Your task to perform on an android device: Clear the shopping cart on newegg.com. Search for "macbook pro" on newegg.com, select the first entry, add it to the cart, then select checkout. Image 0: 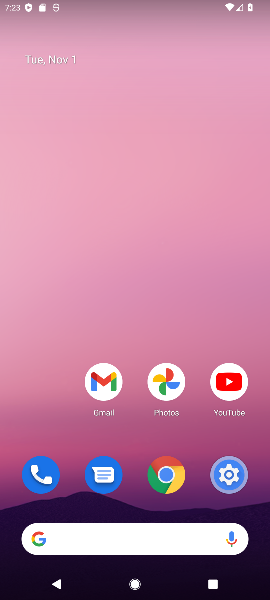
Step 0: drag from (144, 445) to (155, 56)
Your task to perform on an android device: Clear the shopping cart on newegg.com. Search for "macbook pro" on newegg.com, select the first entry, add it to the cart, then select checkout. Image 1: 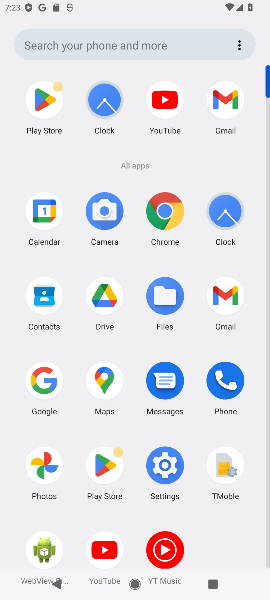
Step 1: click (169, 211)
Your task to perform on an android device: Clear the shopping cart on newegg.com. Search for "macbook pro" on newegg.com, select the first entry, add it to the cart, then select checkout. Image 2: 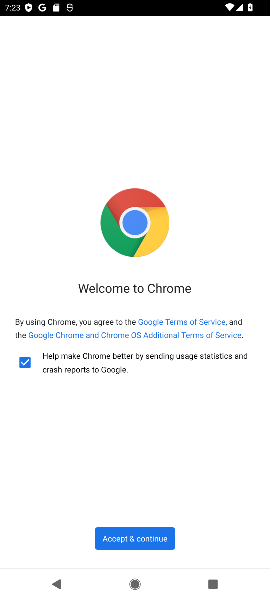
Step 2: click (133, 537)
Your task to perform on an android device: Clear the shopping cart on newegg.com. Search for "macbook pro" on newegg.com, select the first entry, add it to the cart, then select checkout. Image 3: 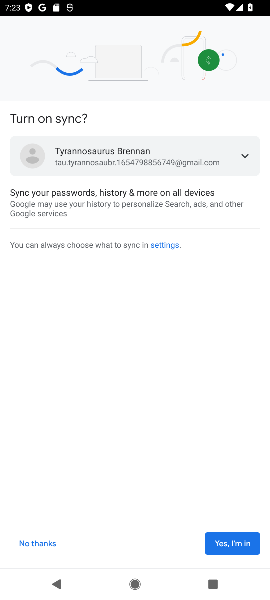
Step 3: click (236, 545)
Your task to perform on an android device: Clear the shopping cart on newegg.com. Search for "macbook pro" on newegg.com, select the first entry, add it to the cart, then select checkout. Image 4: 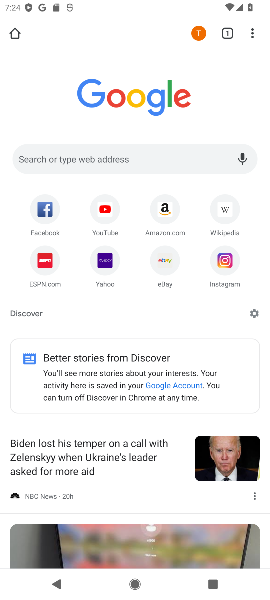
Step 4: click (75, 151)
Your task to perform on an android device: Clear the shopping cart on newegg.com. Search for "macbook pro" on newegg.com, select the first entry, add it to the cart, then select checkout. Image 5: 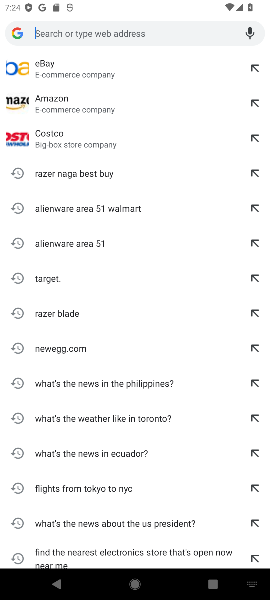
Step 5: type "newegg.com"
Your task to perform on an android device: Clear the shopping cart on newegg.com. Search for "macbook pro" on newegg.com, select the first entry, add it to the cart, then select checkout. Image 6: 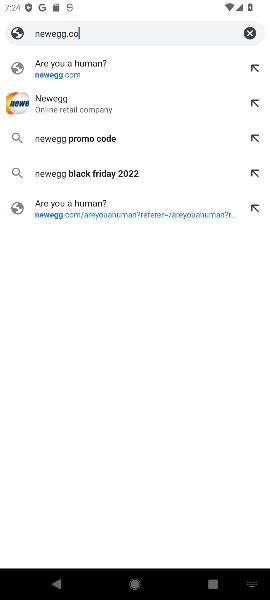
Step 6: type ""
Your task to perform on an android device: Clear the shopping cart on newegg.com. Search for "macbook pro" on newegg.com, select the first entry, add it to the cart, then select checkout. Image 7: 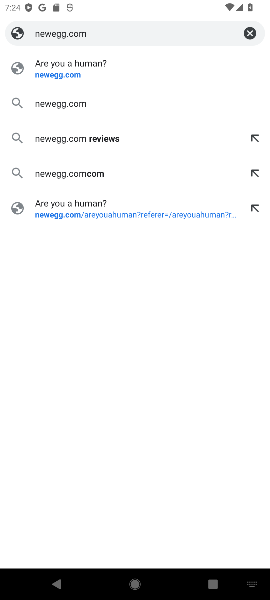
Step 7: click (87, 103)
Your task to perform on an android device: Clear the shopping cart on newegg.com. Search for "macbook pro" on newegg.com, select the first entry, add it to the cart, then select checkout. Image 8: 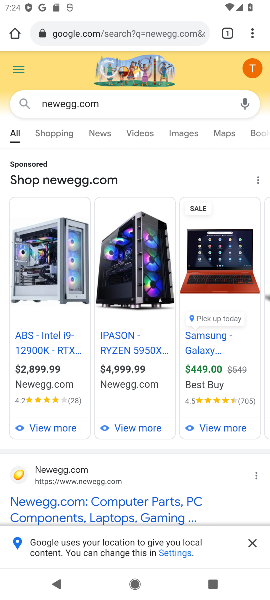
Step 8: click (112, 502)
Your task to perform on an android device: Clear the shopping cart on newegg.com. Search for "macbook pro" on newegg.com, select the first entry, add it to the cart, then select checkout. Image 9: 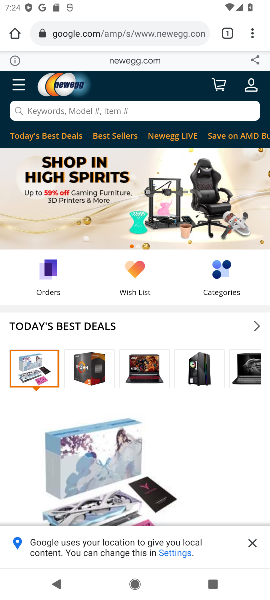
Step 9: click (52, 107)
Your task to perform on an android device: Clear the shopping cart on newegg.com. Search for "macbook pro" on newegg.com, select the first entry, add it to the cart, then select checkout. Image 10: 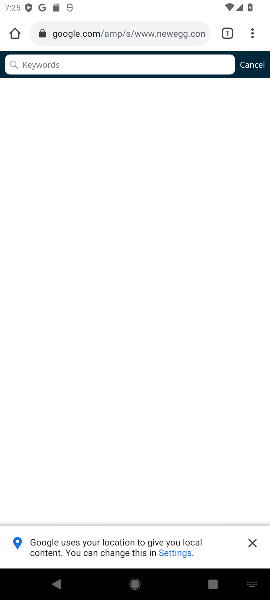
Step 10: type "macbook pro"
Your task to perform on an android device: Clear the shopping cart on newegg.com. Search for "macbook pro" on newegg.com, select the first entry, add it to the cart, then select checkout. Image 11: 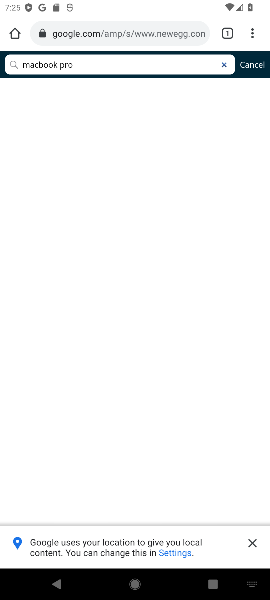
Step 11: task complete